Your task to perform on an android device: Open Amazon Image 0: 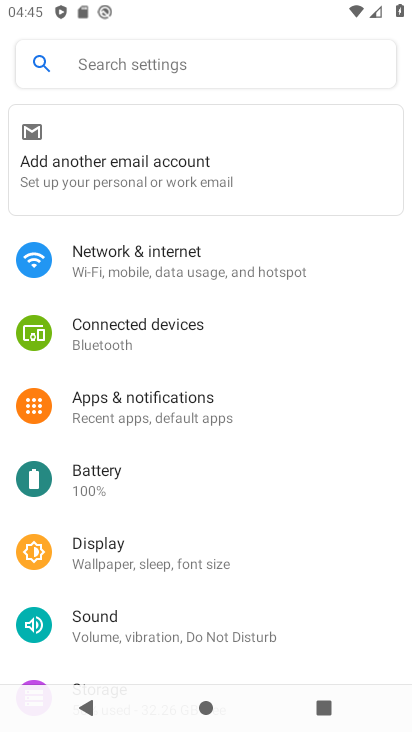
Step 0: press home button
Your task to perform on an android device: Open Amazon Image 1: 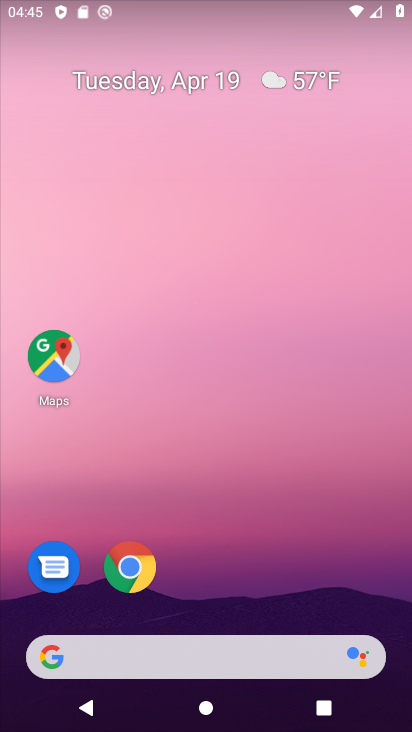
Step 1: drag from (327, 604) to (326, 178)
Your task to perform on an android device: Open Amazon Image 2: 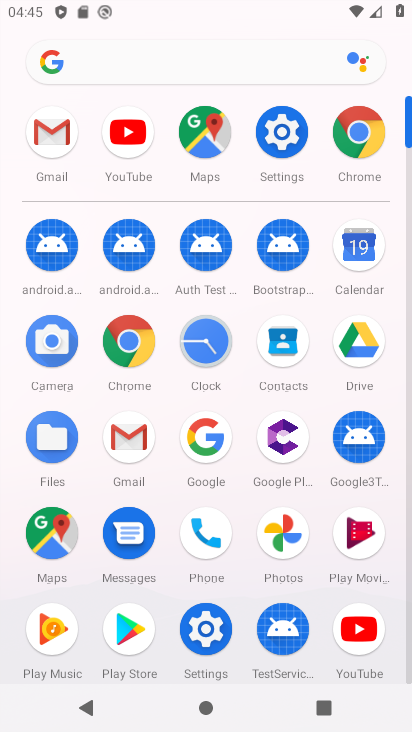
Step 2: click (136, 356)
Your task to perform on an android device: Open Amazon Image 3: 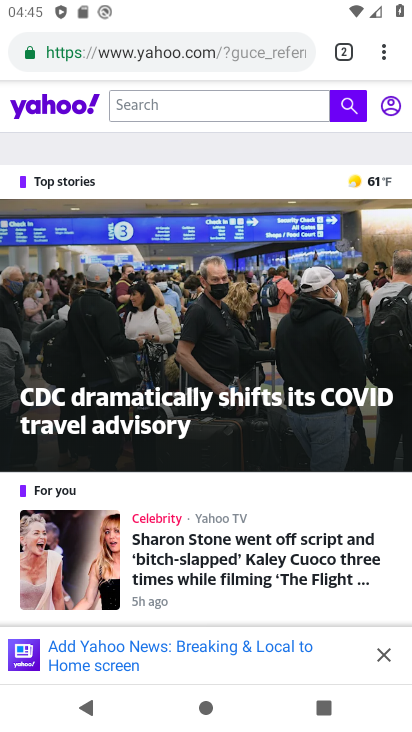
Step 3: press back button
Your task to perform on an android device: Open Amazon Image 4: 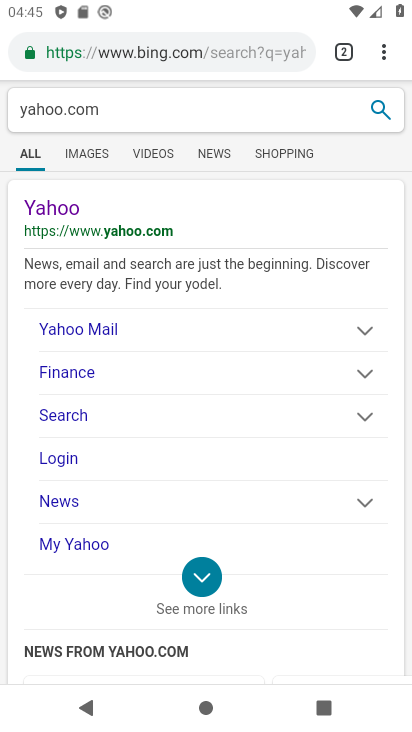
Step 4: click (216, 115)
Your task to perform on an android device: Open Amazon Image 5: 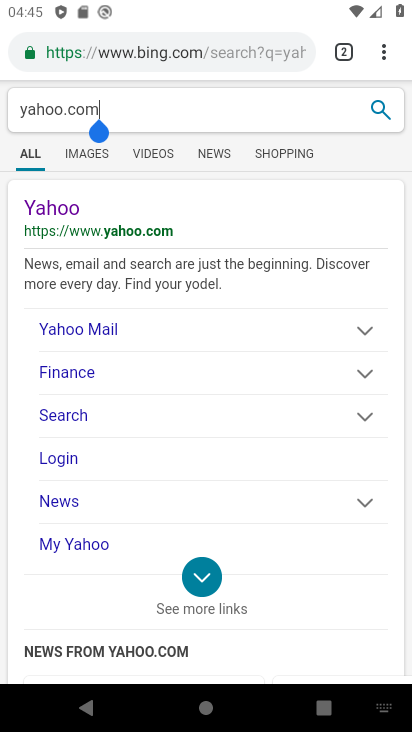
Step 5: task complete